Your task to perform on an android device: Check the weather Image 0: 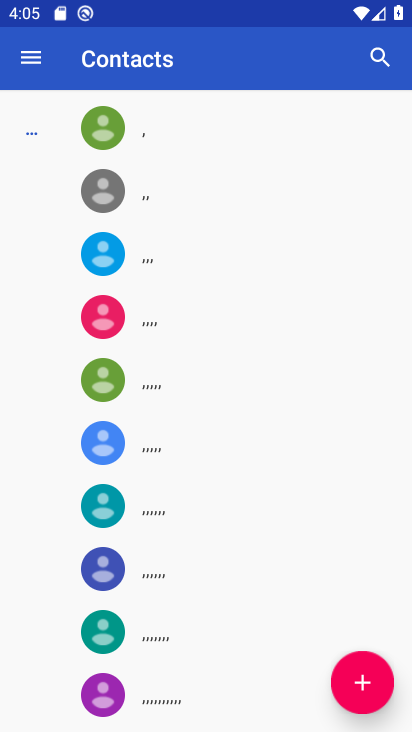
Step 0: press home button
Your task to perform on an android device: Check the weather Image 1: 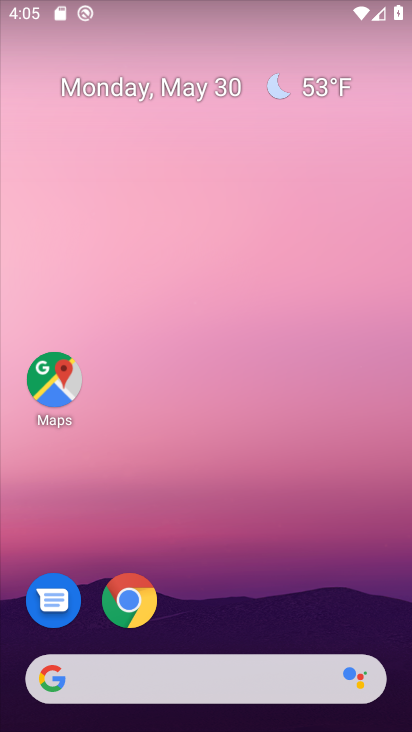
Step 1: click (312, 90)
Your task to perform on an android device: Check the weather Image 2: 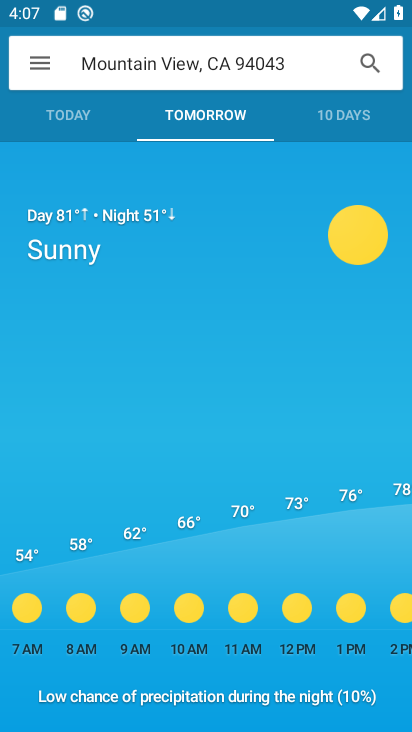
Step 2: task complete